Your task to perform on an android device: Search for "logitech g pro" on costco.com, select the first entry, add it to the cart, then select checkout. Image 0: 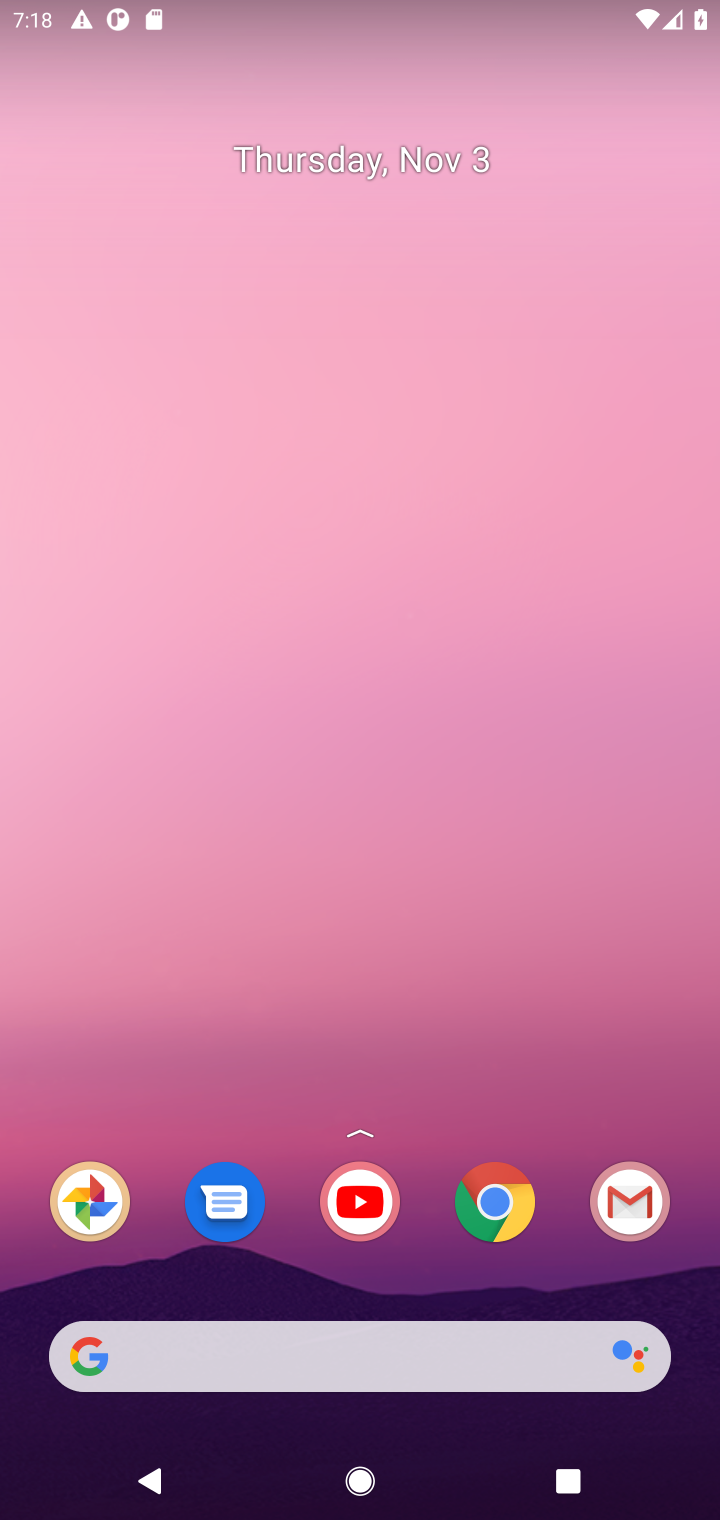
Step 0: press home button
Your task to perform on an android device: Search for "logitech g pro" on costco.com, select the first entry, add it to the cart, then select checkout. Image 1: 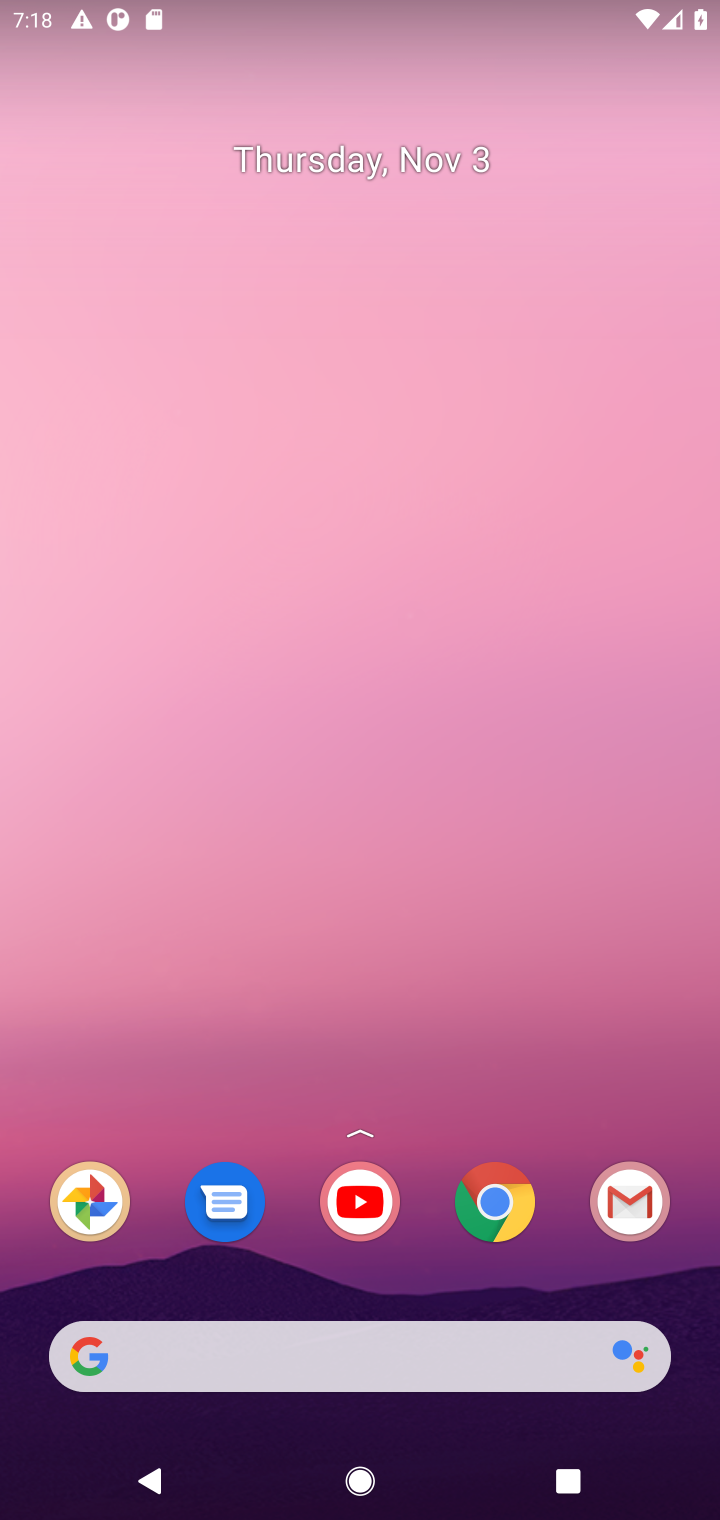
Step 1: click (128, 1367)
Your task to perform on an android device: Search for "logitech g pro" on costco.com, select the first entry, add it to the cart, then select checkout. Image 2: 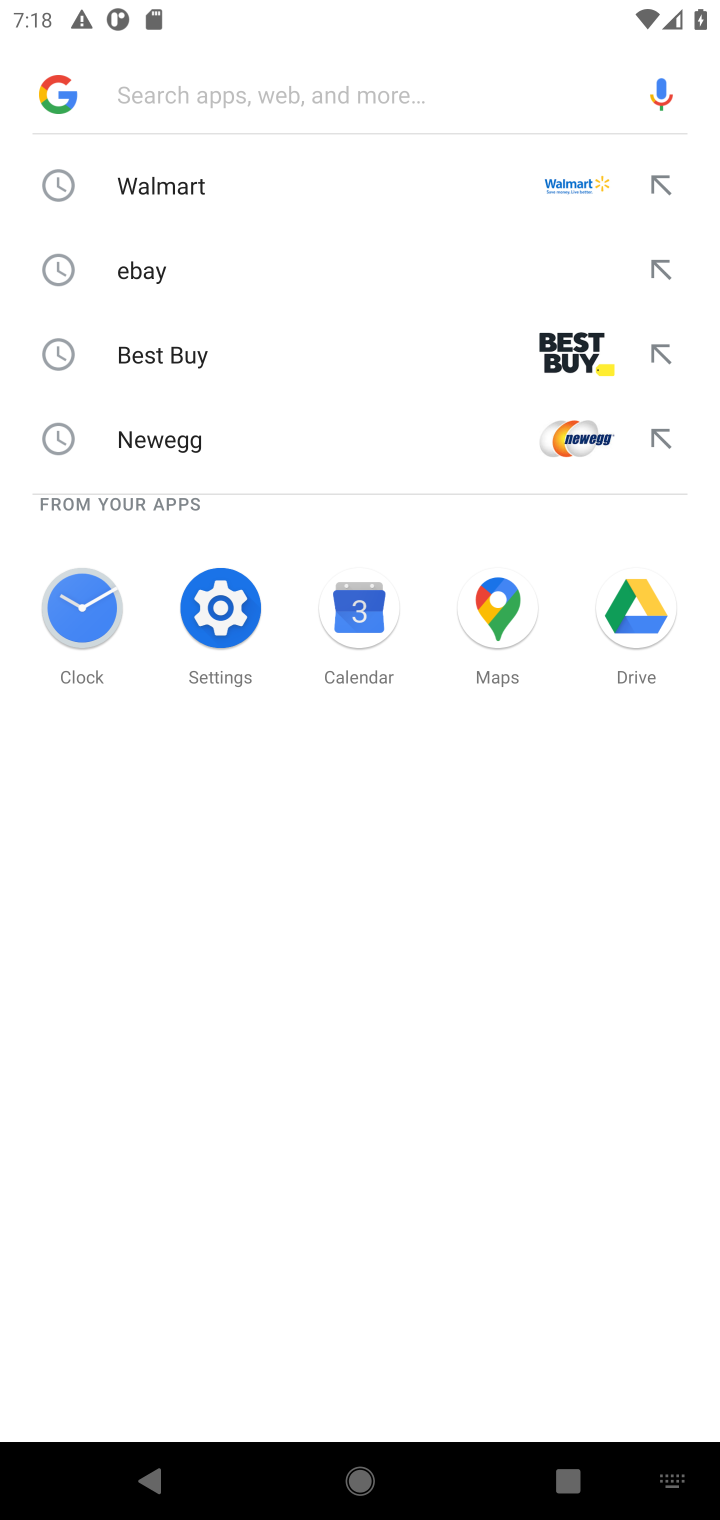
Step 2: type "costco.com"
Your task to perform on an android device: Search for "logitech g pro" on costco.com, select the first entry, add it to the cart, then select checkout. Image 3: 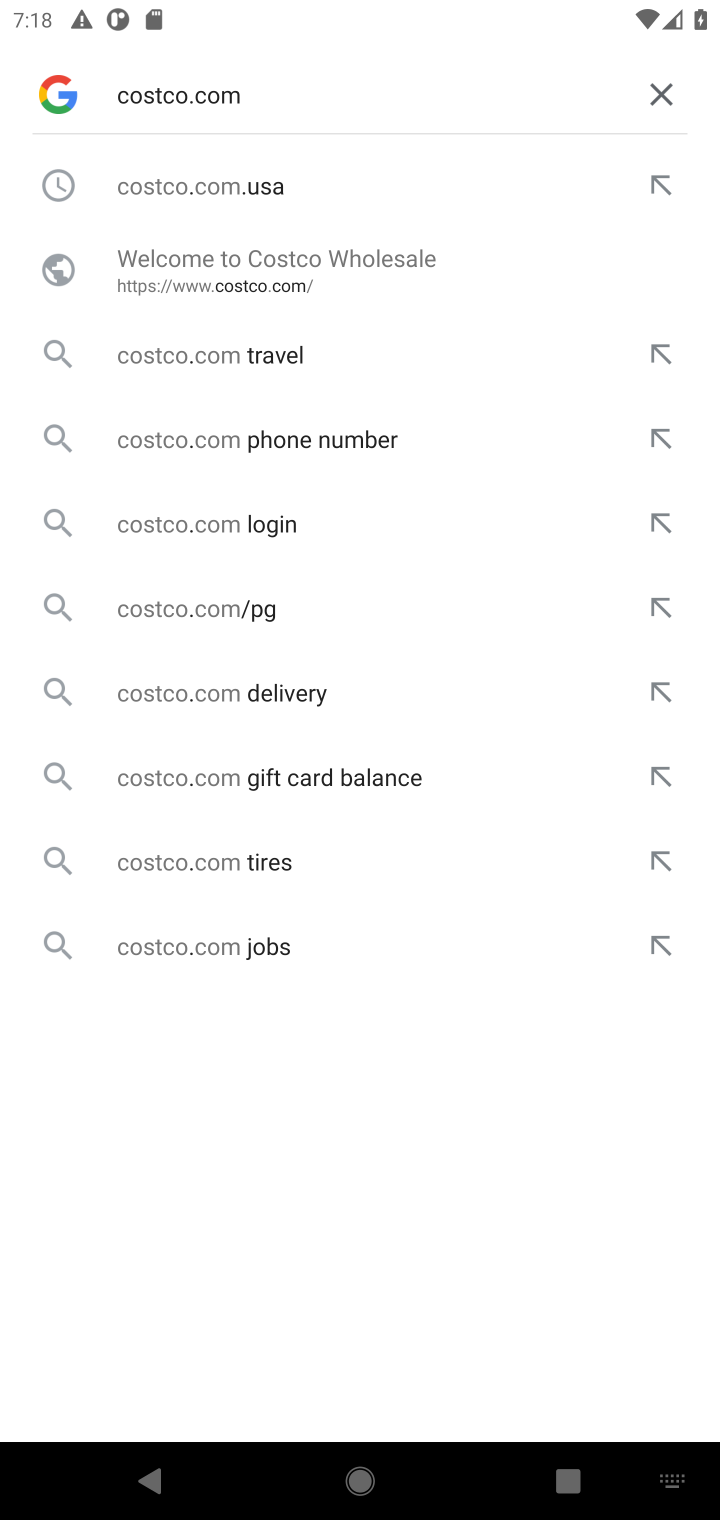
Step 3: press enter
Your task to perform on an android device: Search for "logitech g pro" on costco.com, select the first entry, add it to the cart, then select checkout. Image 4: 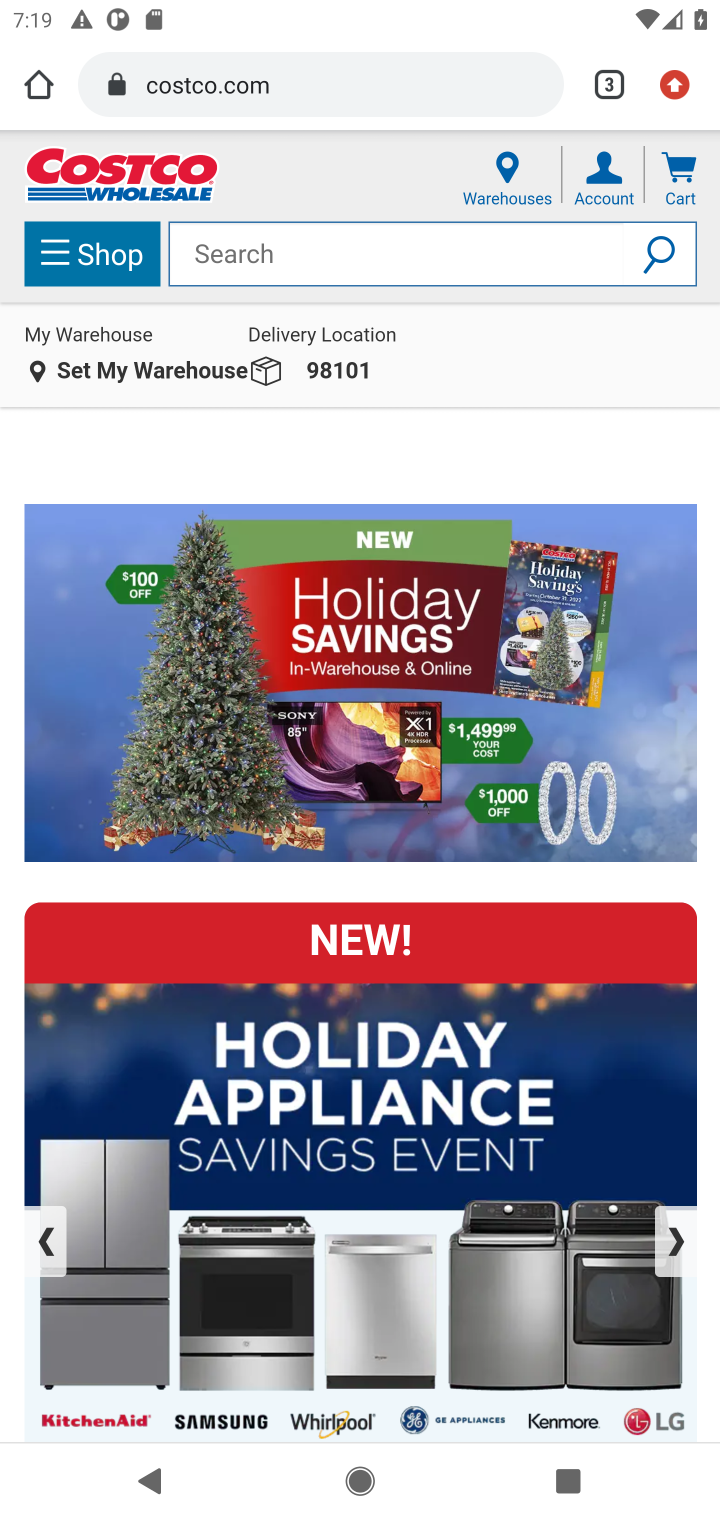
Step 4: click (230, 236)
Your task to perform on an android device: Search for "logitech g pro" on costco.com, select the first entry, add it to the cart, then select checkout. Image 5: 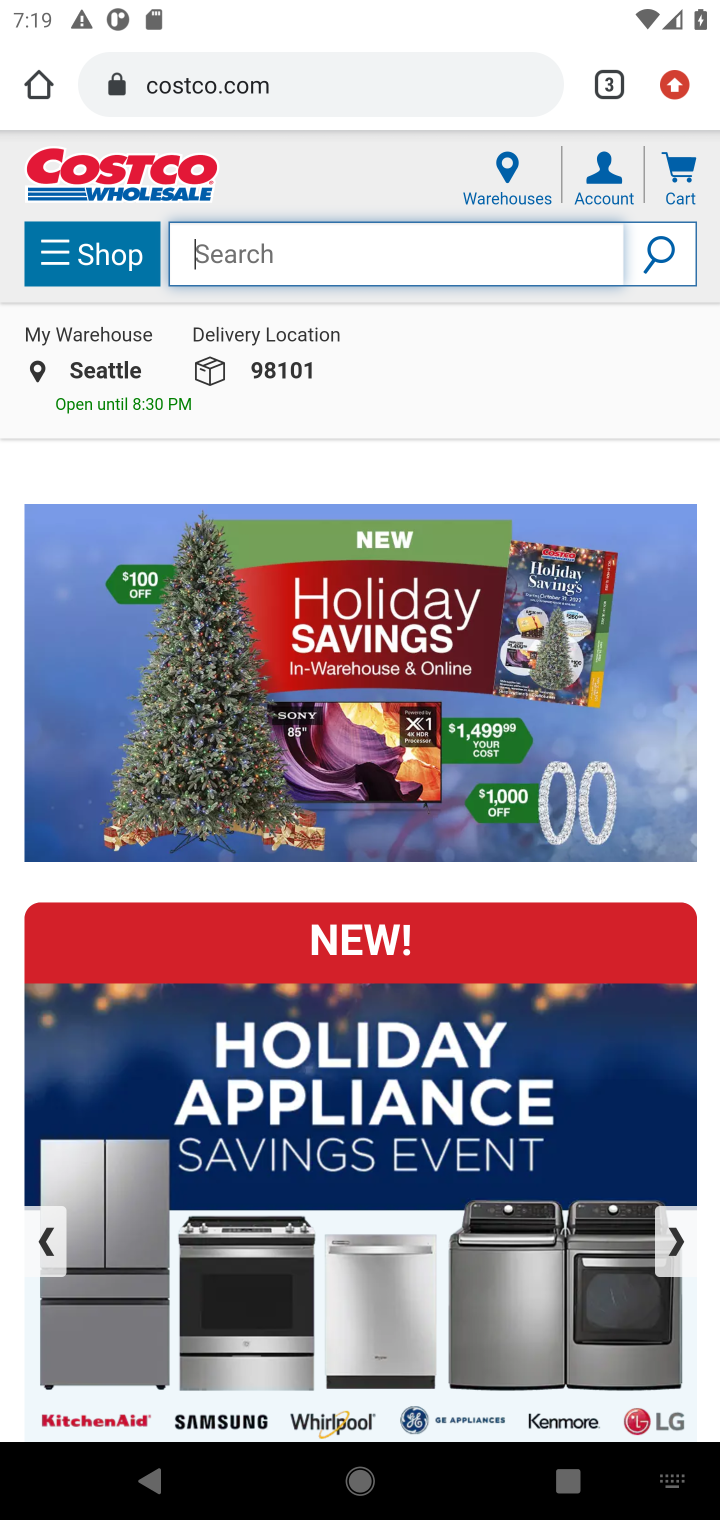
Step 5: type "logitech g pro"
Your task to perform on an android device: Search for "logitech g pro" on costco.com, select the first entry, add it to the cart, then select checkout. Image 6: 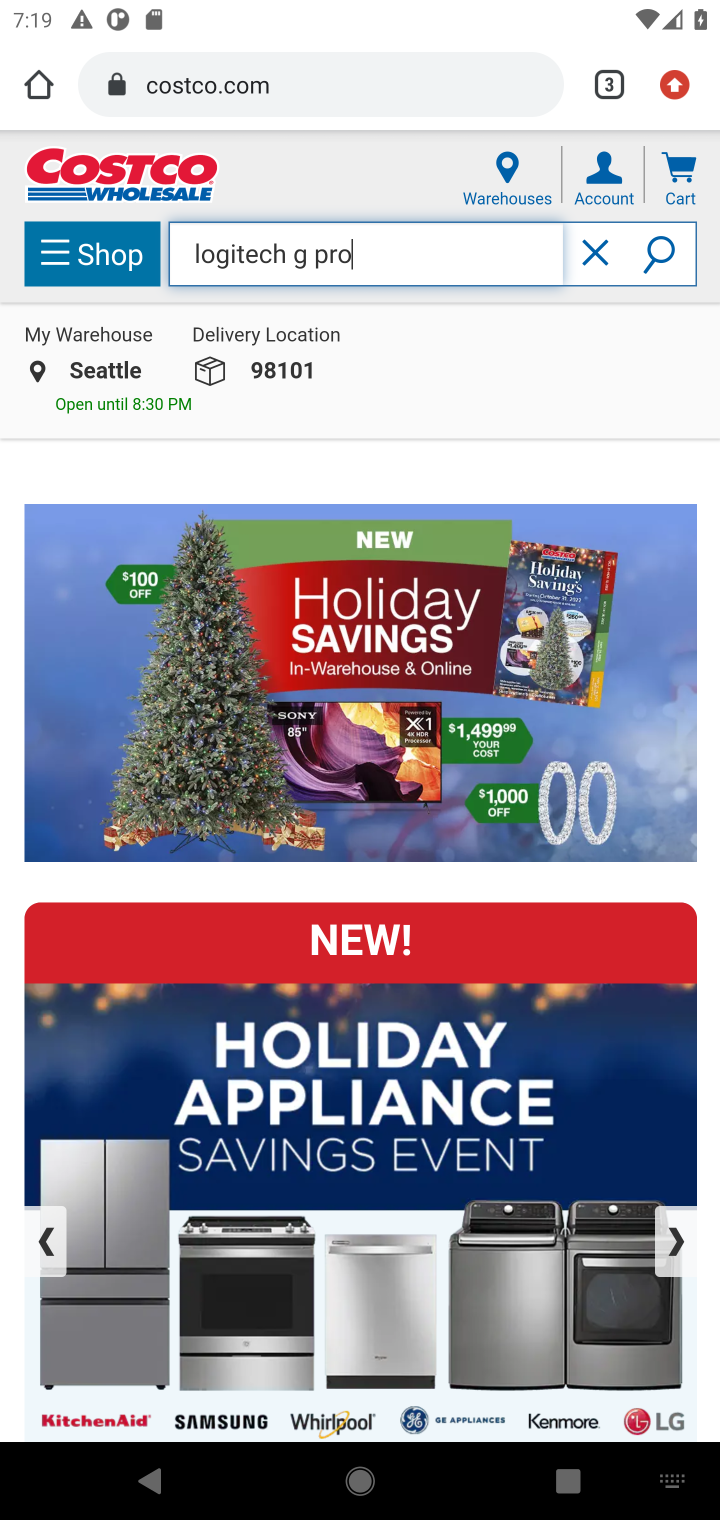
Step 6: press enter
Your task to perform on an android device: Search for "logitech g pro" on costco.com, select the first entry, add it to the cart, then select checkout. Image 7: 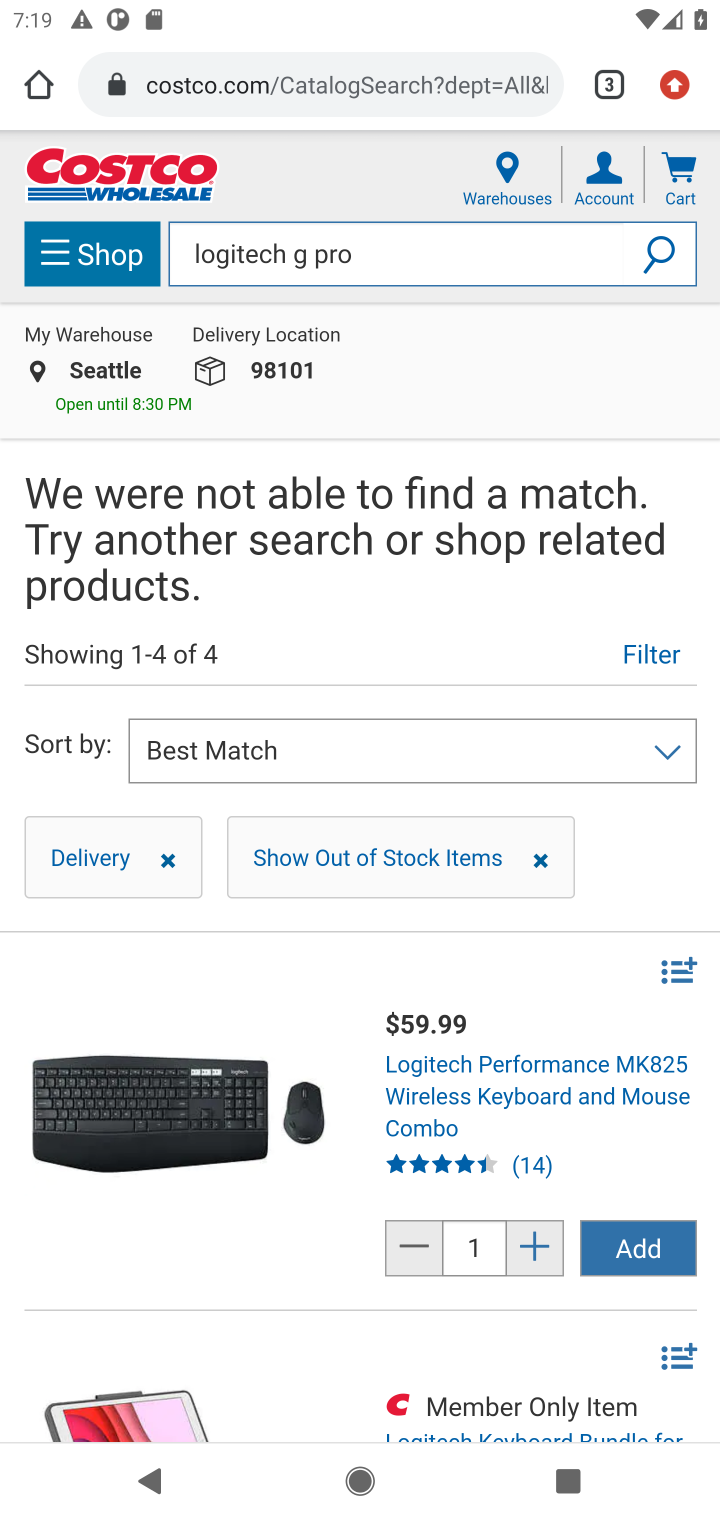
Step 7: task complete